Your task to perform on an android device: Open battery settings Image 0: 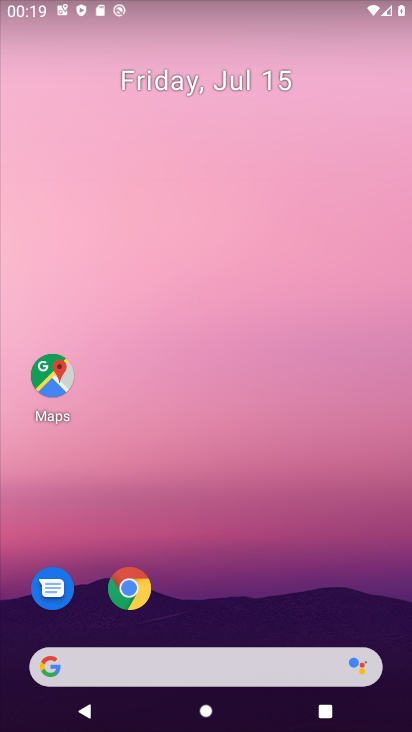
Step 0: drag from (231, 630) to (283, 54)
Your task to perform on an android device: Open battery settings Image 1: 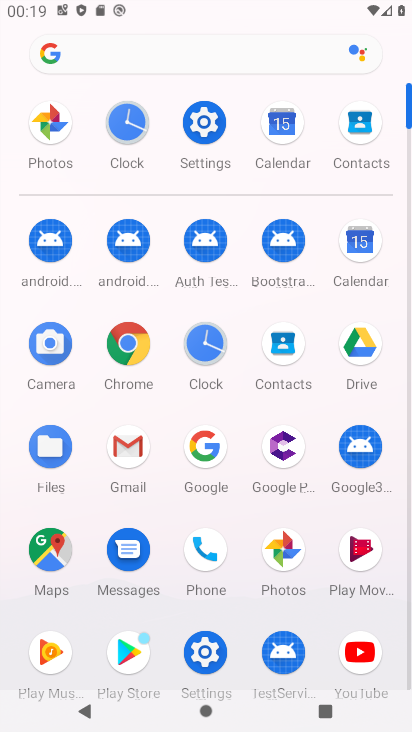
Step 1: click (211, 141)
Your task to perform on an android device: Open battery settings Image 2: 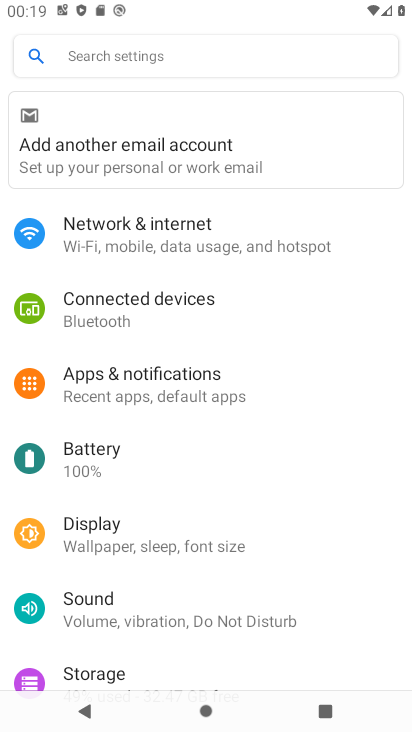
Step 2: click (92, 448)
Your task to perform on an android device: Open battery settings Image 3: 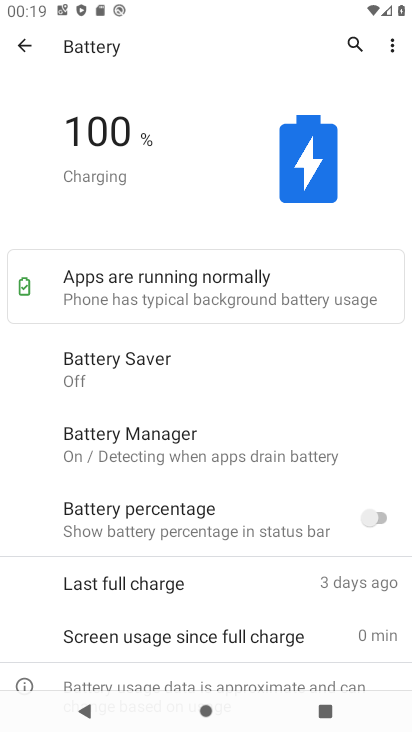
Step 3: task complete